Your task to perform on an android device: turn off javascript in the chrome app Image 0: 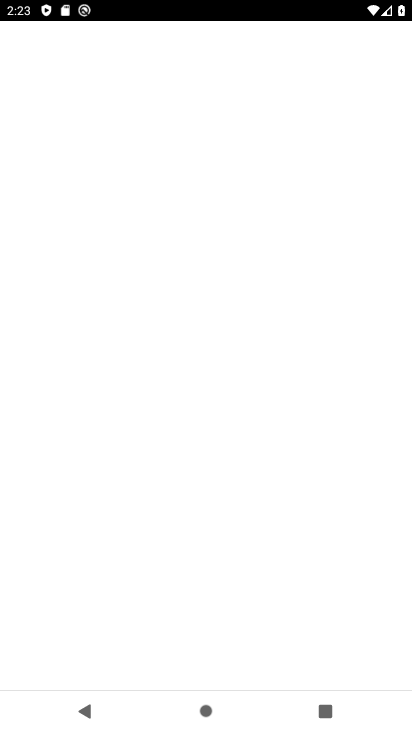
Step 0: click (129, 588)
Your task to perform on an android device: turn off javascript in the chrome app Image 1: 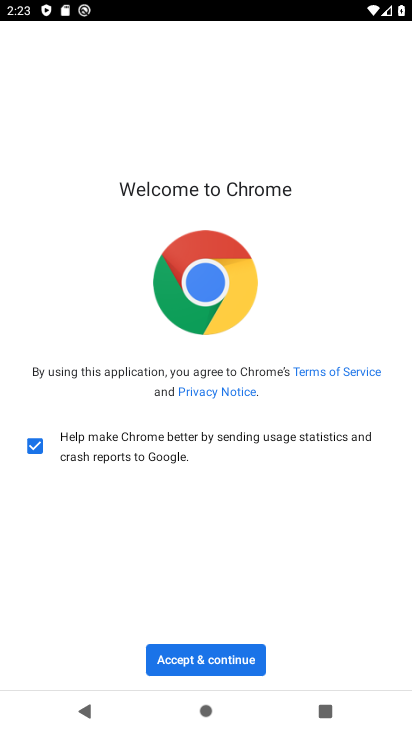
Step 1: click (151, 660)
Your task to perform on an android device: turn off javascript in the chrome app Image 2: 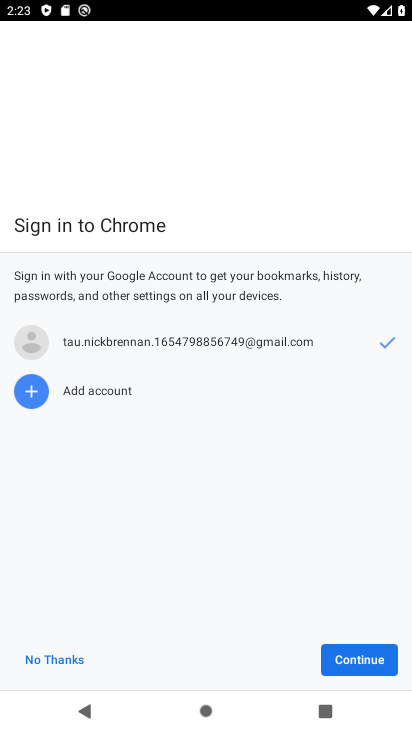
Step 2: click (346, 662)
Your task to perform on an android device: turn off javascript in the chrome app Image 3: 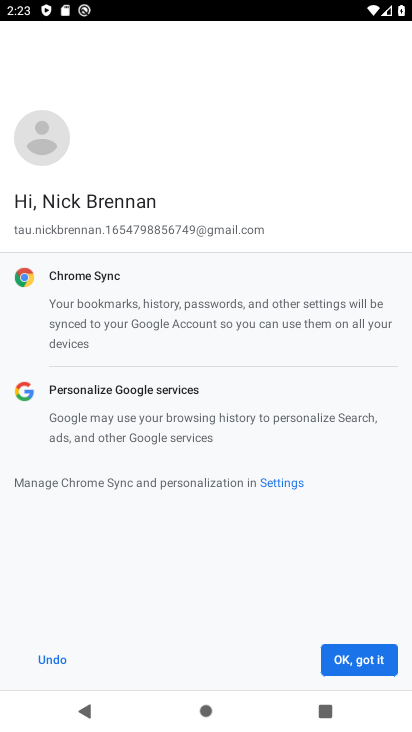
Step 3: click (361, 651)
Your task to perform on an android device: turn off javascript in the chrome app Image 4: 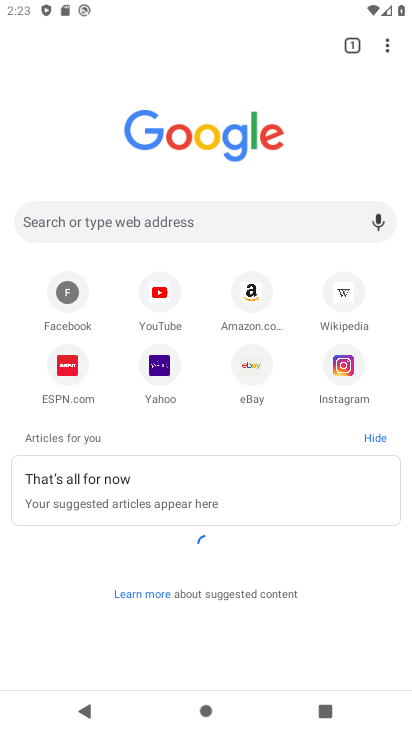
Step 4: click (391, 42)
Your task to perform on an android device: turn off javascript in the chrome app Image 5: 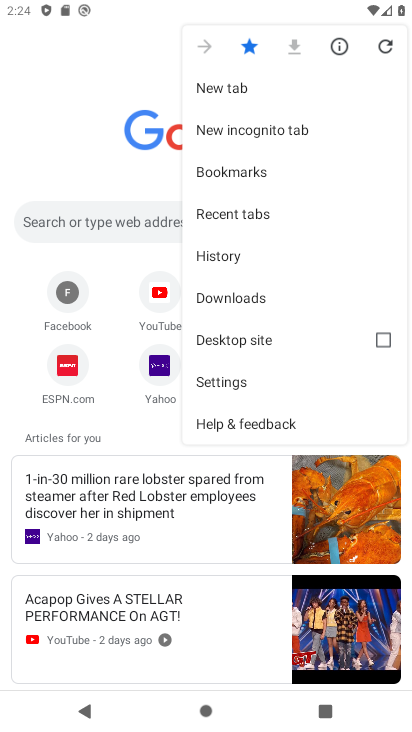
Step 5: click (231, 375)
Your task to perform on an android device: turn off javascript in the chrome app Image 6: 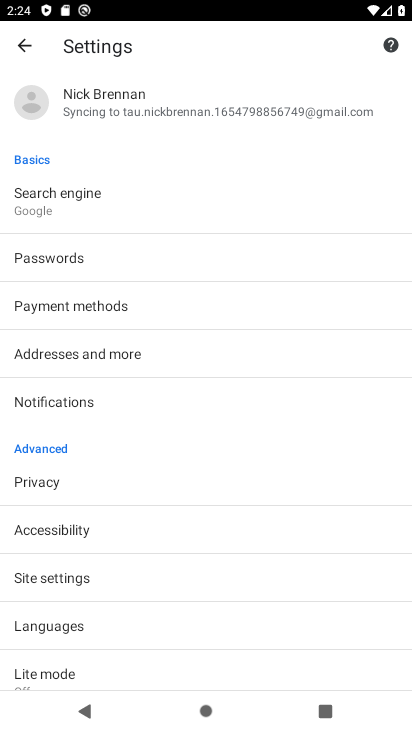
Step 6: click (50, 576)
Your task to perform on an android device: turn off javascript in the chrome app Image 7: 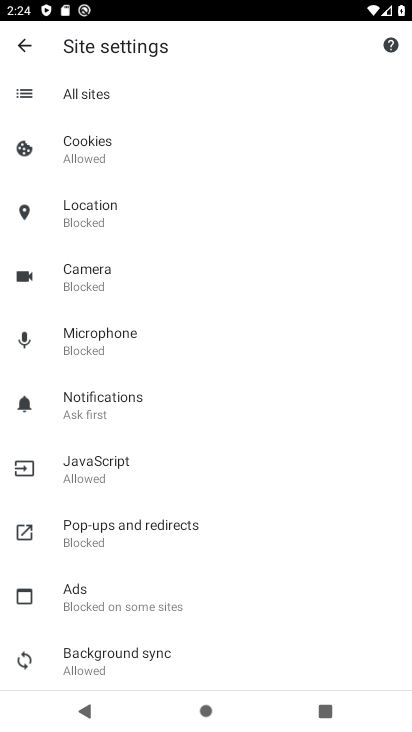
Step 7: click (93, 458)
Your task to perform on an android device: turn off javascript in the chrome app Image 8: 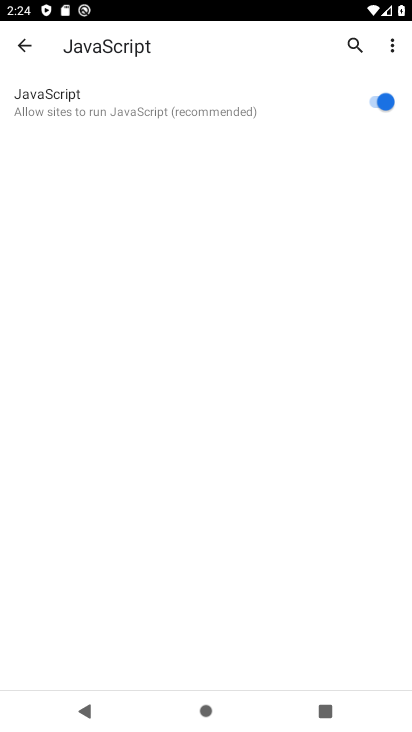
Step 8: click (379, 104)
Your task to perform on an android device: turn off javascript in the chrome app Image 9: 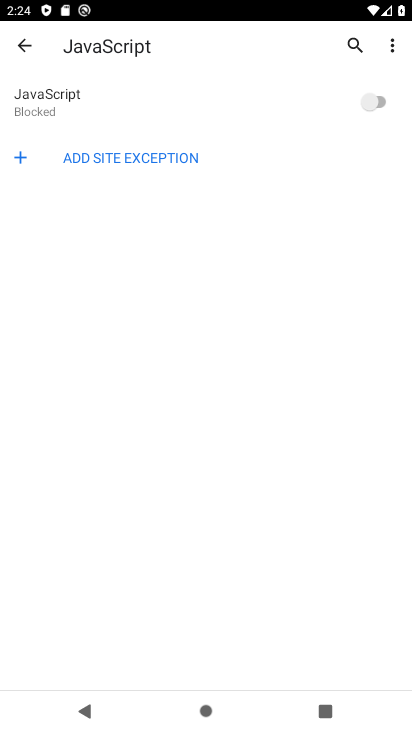
Step 9: task complete